Your task to perform on an android device: turn off sleep mode Image 0: 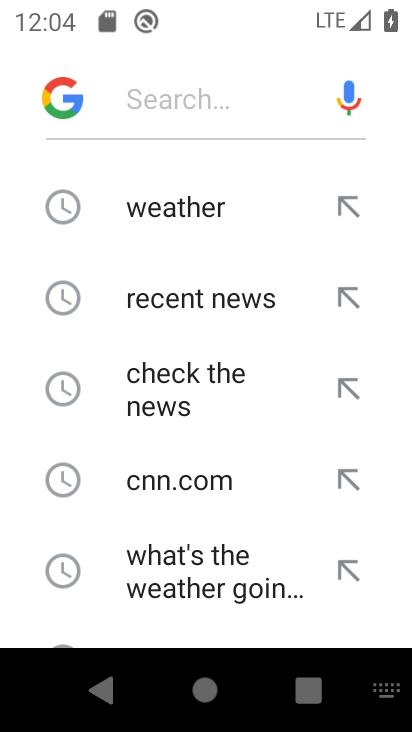
Step 0: press home button
Your task to perform on an android device: turn off sleep mode Image 1: 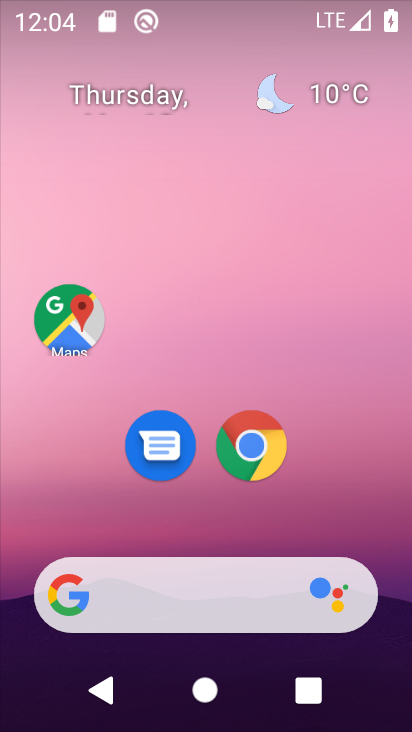
Step 1: drag from (167, 520) to (275, 19)
Your task to perform on an android device: turn off sleep mode Image 2: 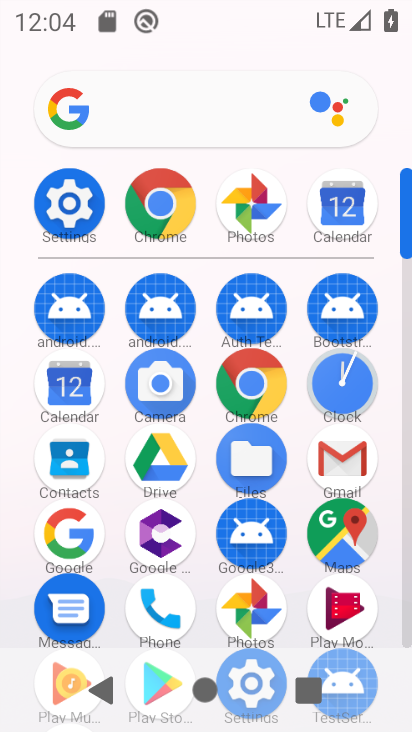
Step 2: click (70, 199)
Your task to perform on an android device: turn off sleep mode Image 3: 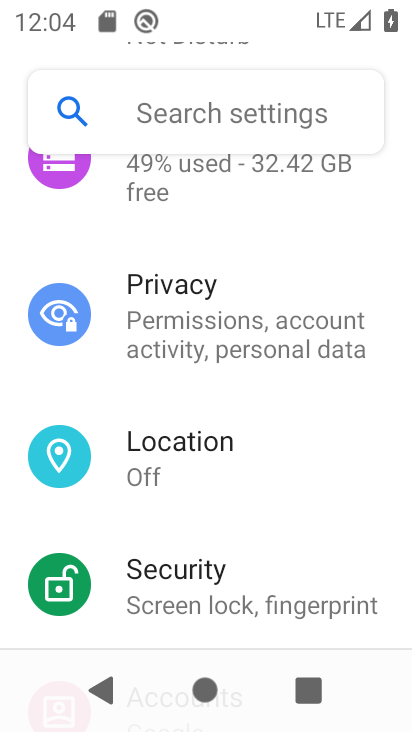
Step 3: click (187, 96)
Your task to perform on an android device: turn off sleep mode Image 4: 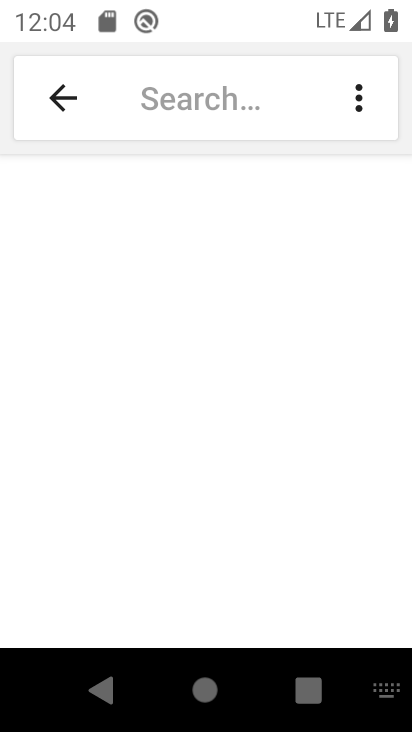
Step 4: type "sleep mode"
Your task to perform on an android device: turn off sleep mode Image 5: 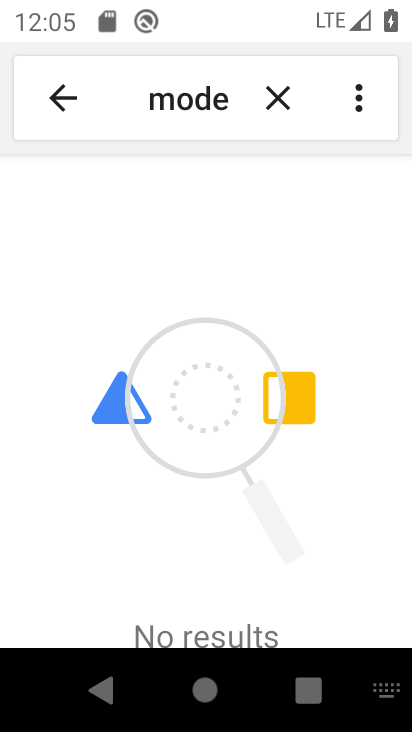
Step 5: task complete